Your task to perform on an android device: Go to battery settings Image 0: 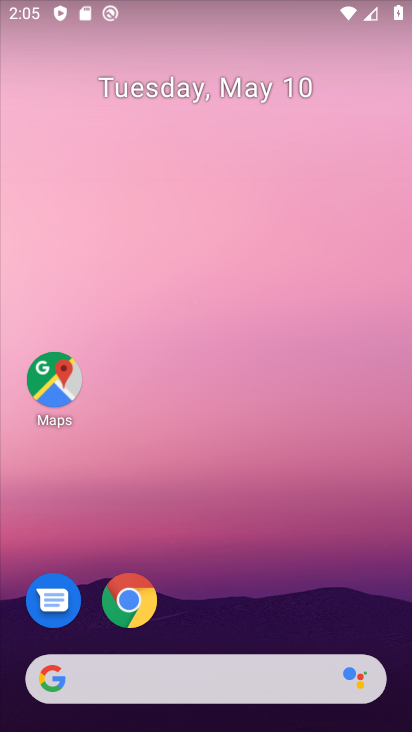
Step 0: drag from (236, 616) to (268, 144)
Your task to perform on an android device: Go to battery settings Image 1: 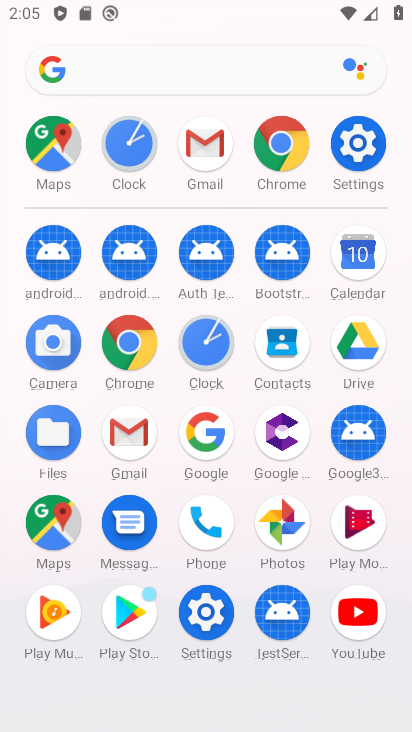
Step 1: click (364, 182)
Your task to perform on an android device: Go to battery settings Image 2: 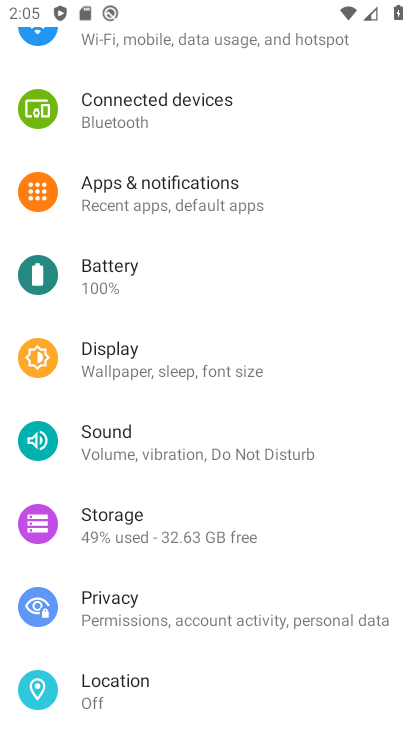
Step 2: click (174, 293)
Your task to perform on an android device: Go to battery settings Image 3: 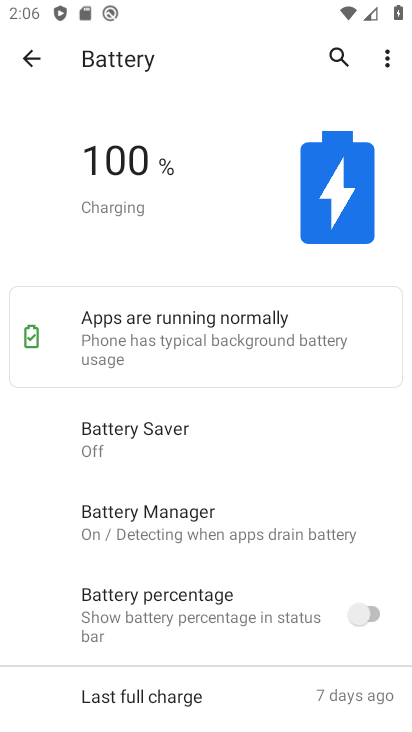
Step 3: task complete